Your task to perform on an android device: Search for a 1/2 in. x 1/2 in. x 24 in. 600 grit sander on Lowes.com Image 0: 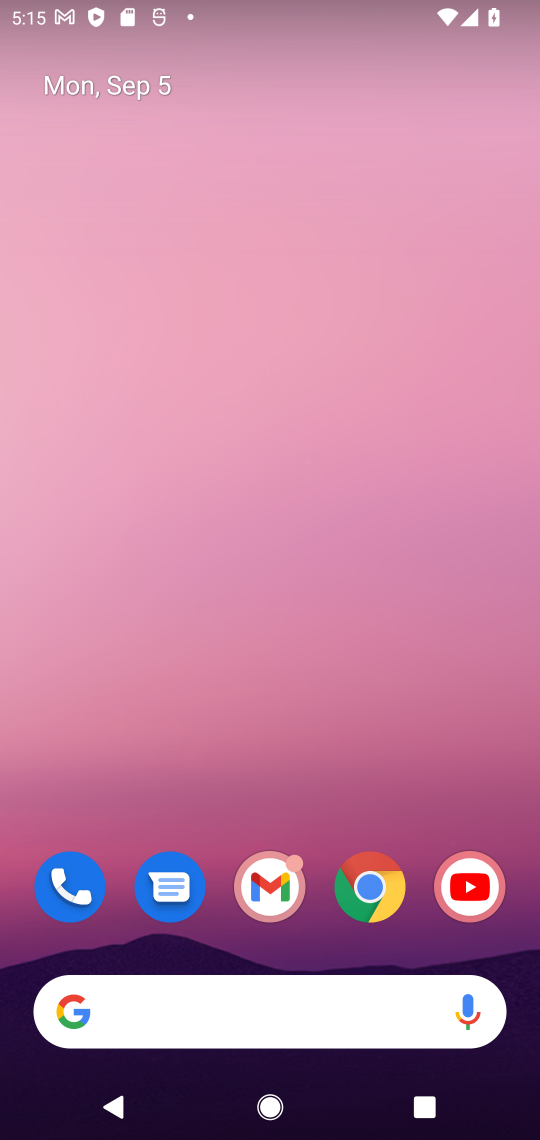
Step 0: drag from (229, 822) to (438, 0)
Your task to perform on an android device: Search for a 1/2 in. x 1/2 in. x 24 in. 600 grit sander on Lowes.com Image 1: 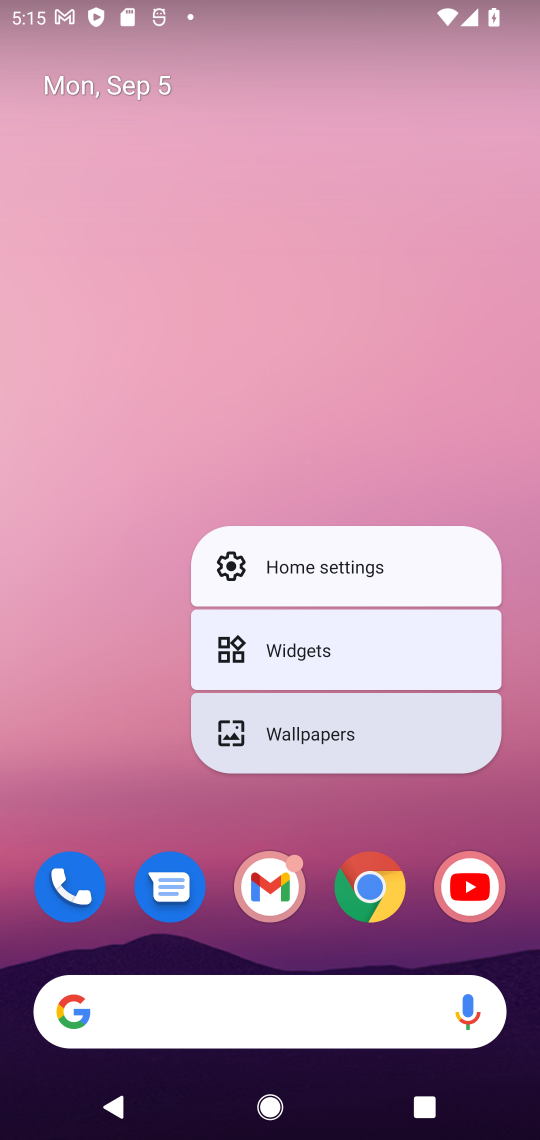
Step 1: click (83, 642)
Your task to perform on an android device: Search for a 1/2 in. x 1/2 in. x 24 in. 600 grit sander on Lowes.com Image 2: 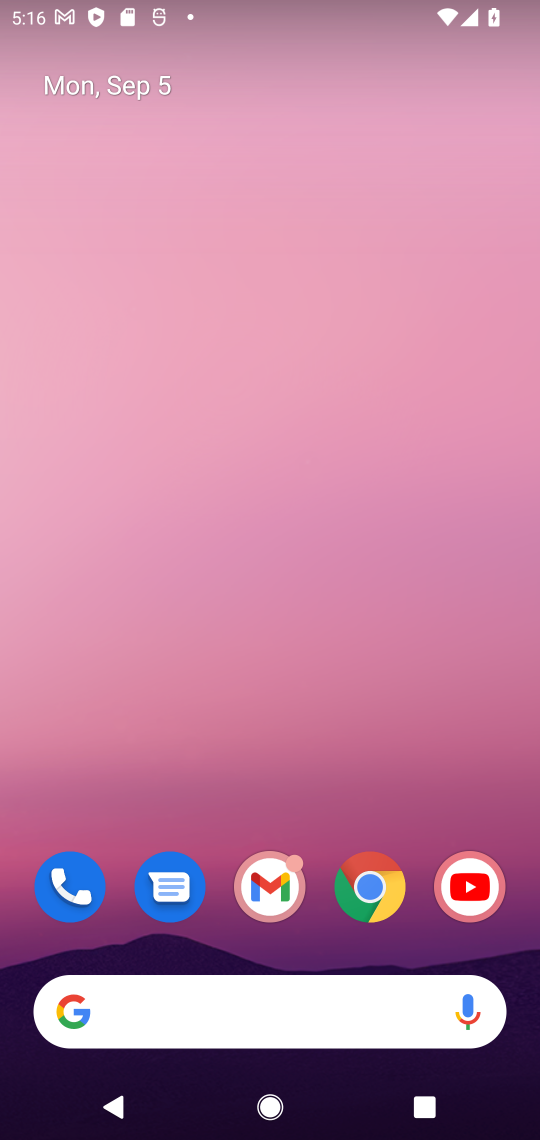
Step 2: drag from (191, 782) to (363, 12)
Your task to perform on an android device: Search for a 1/2 in. x 1/2 in. x 24 in. 600 grit sander on Lowes.com Image 3: 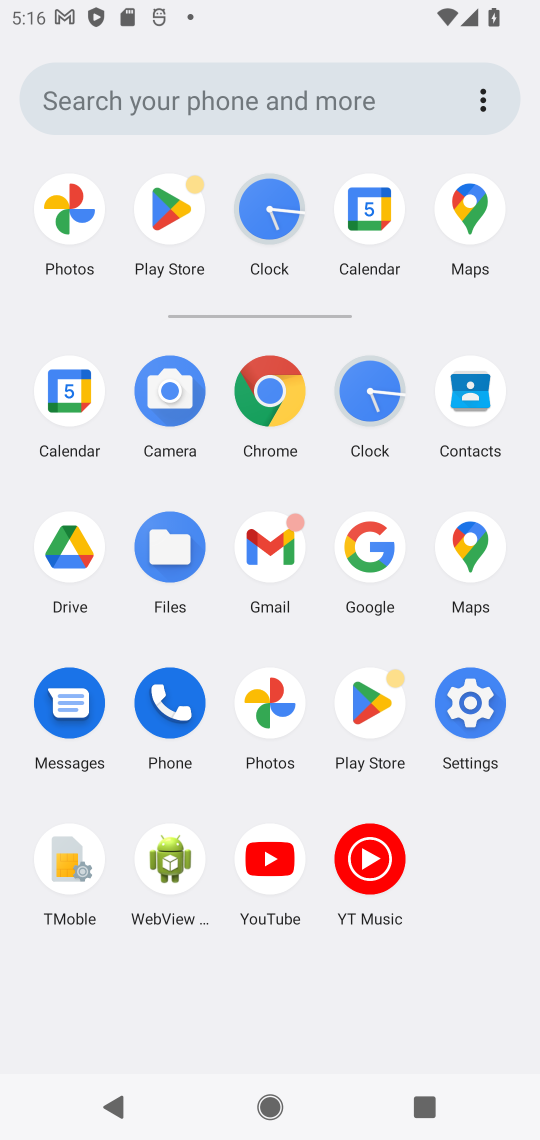
Step 3: click (278, 393)
Your task to perform on an android device: Search for a 1/2 in. x 1/2 in. x 24 in. 600 grit sander on Lowes.com Image 4: 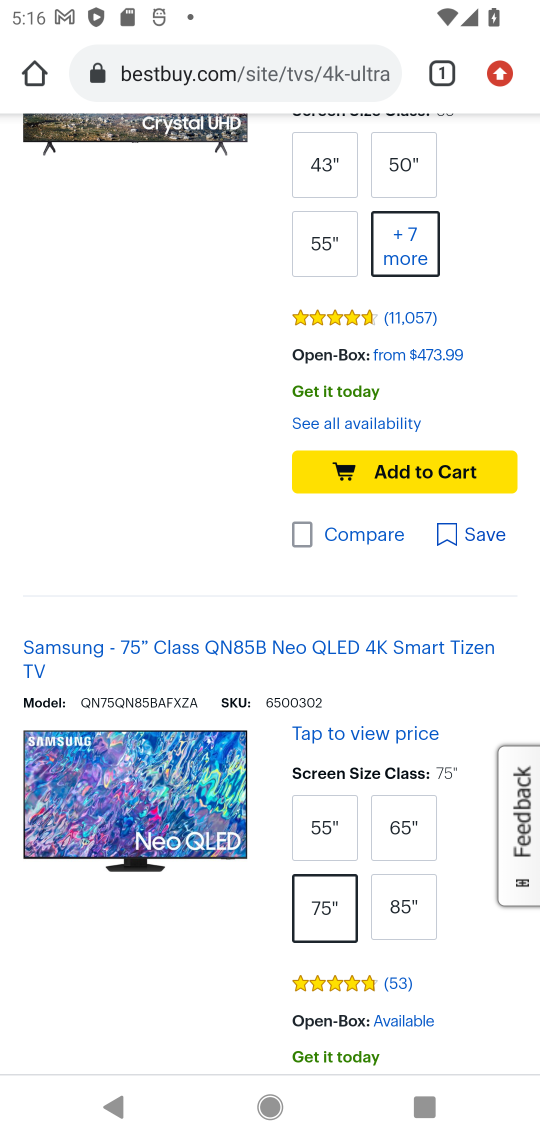
Step 4: click (162, 72)
Your task to perform on an android device: Search for a 1/2 in. x 1/2 in. x 24 in. 600 grit sander on Lowes.com Image 5: 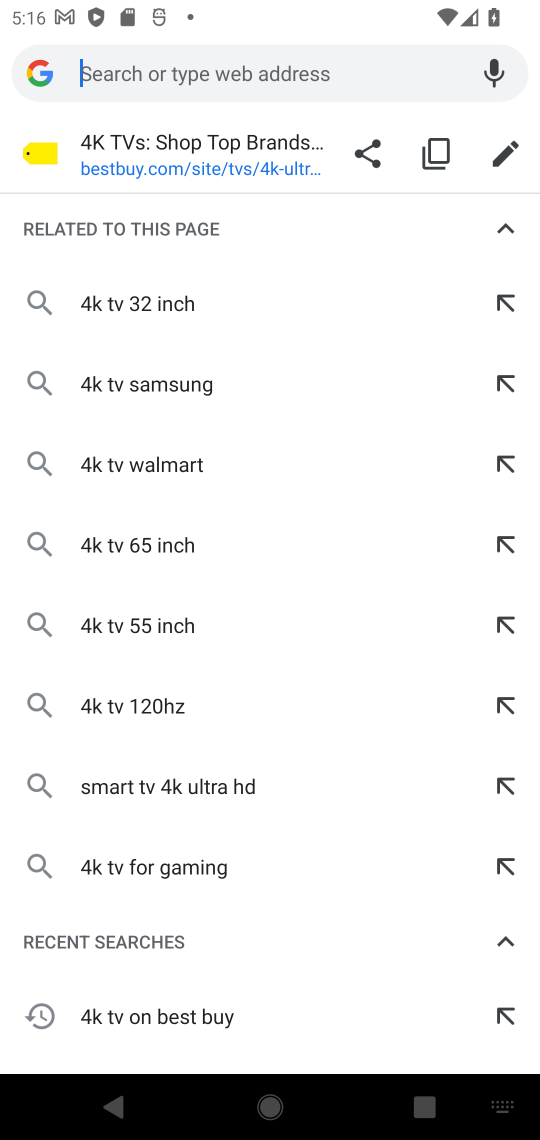
Step 5: type "1/2 in. * 1/2 in. * 24 in. 600 grit sander on Lowes.com"
Your task to perform on an android device: Search for a 1/2 in. x 1/2 in. x 24 in. 600 grit sander on Lowes.com Image 6: 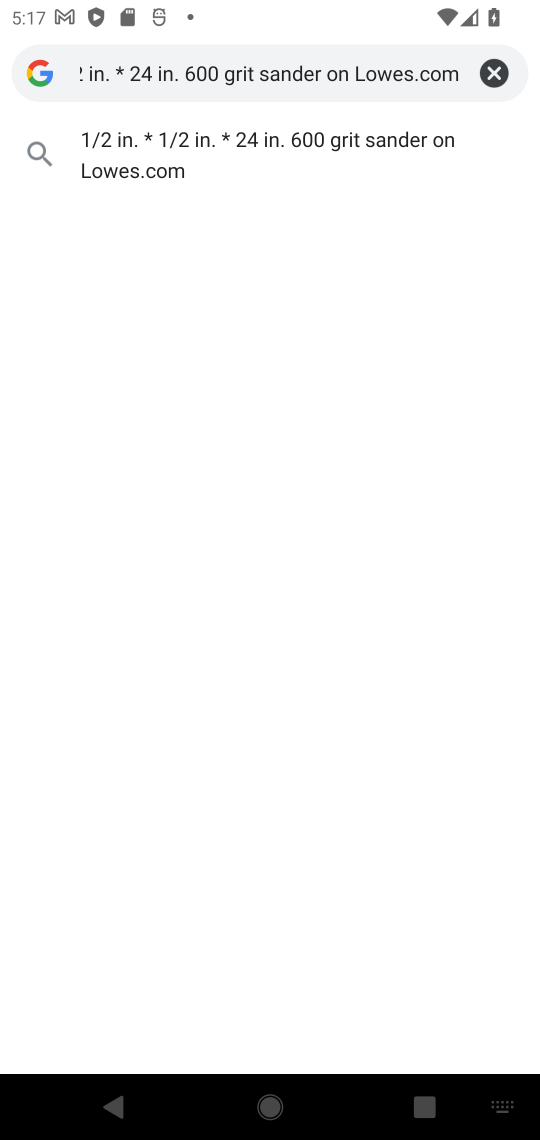
Step 6: click (177, 157)
Your task to perform on an android device: Search for a 1/2 in. x 1/2 in. x 24 in. 600 grit sander on Lowes.com Image 7: 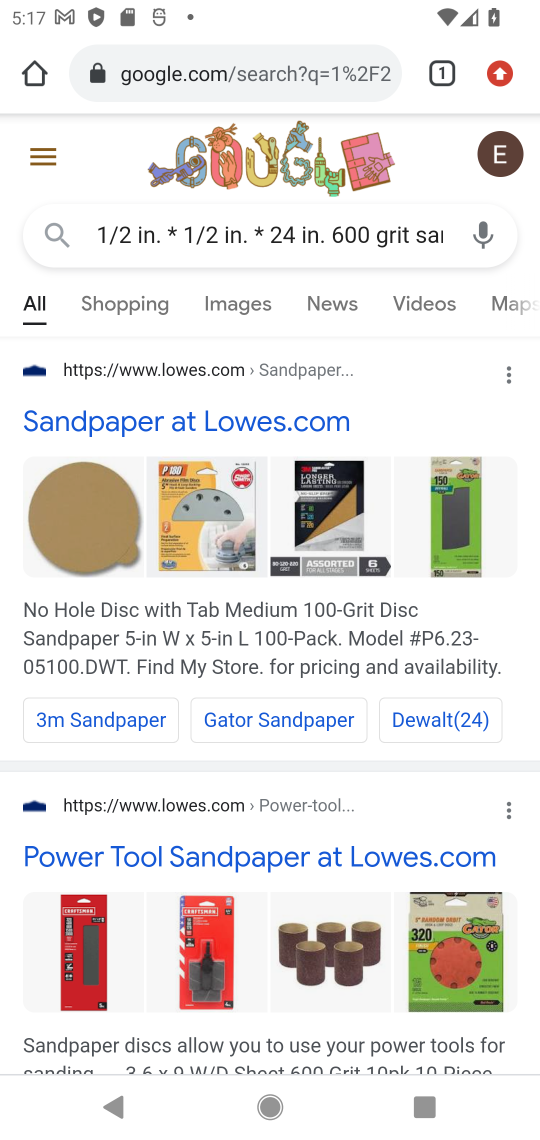
Step 7: drag from (215, 784) to (262, 823)
Your task to perform on an android device: Search for a 1/2 in. x 1/2 in. x 24 in. 600 grit sander on Lowes.com Image 8: 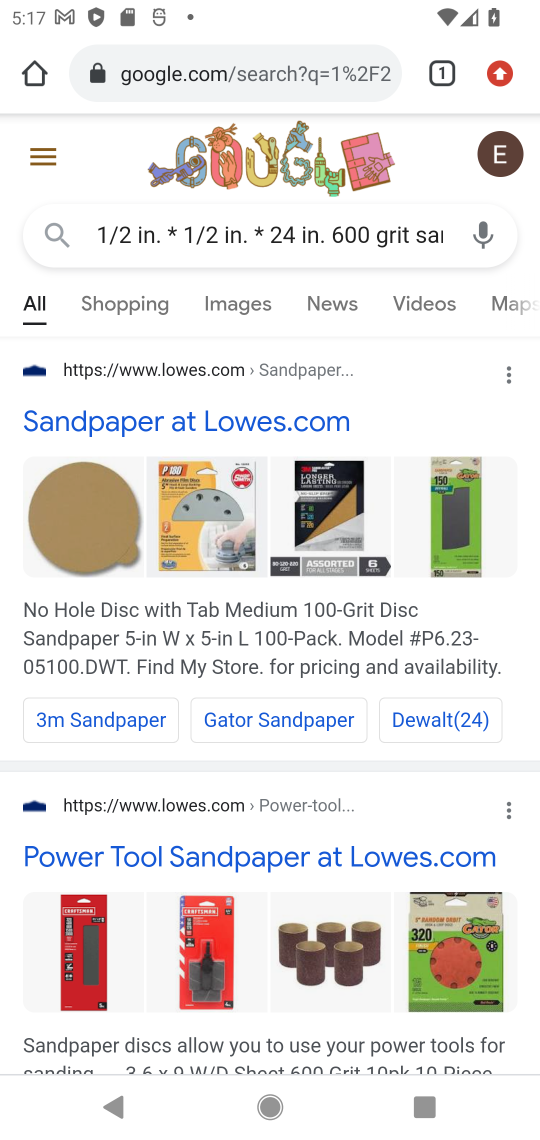
Step 8: click (229, 420)
Your task to perform on an android device: Search for a 1/2 in. x 1/2 in. x 24 in. 600 grit sander on Lowes.com Image 9: 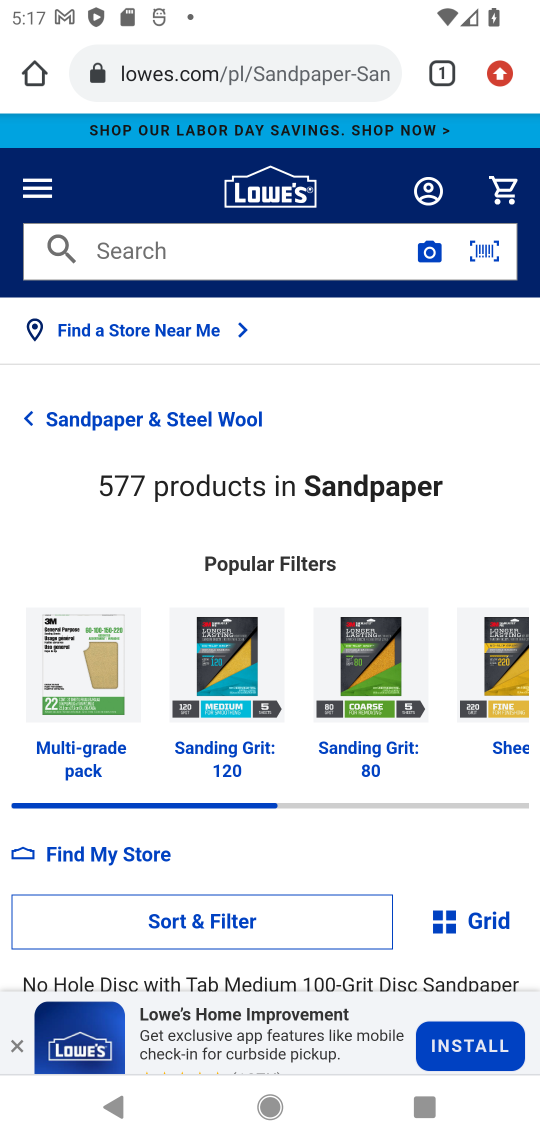
Step 9: task complete